Your task to perform on an android device: What is the recent news? Image 0: 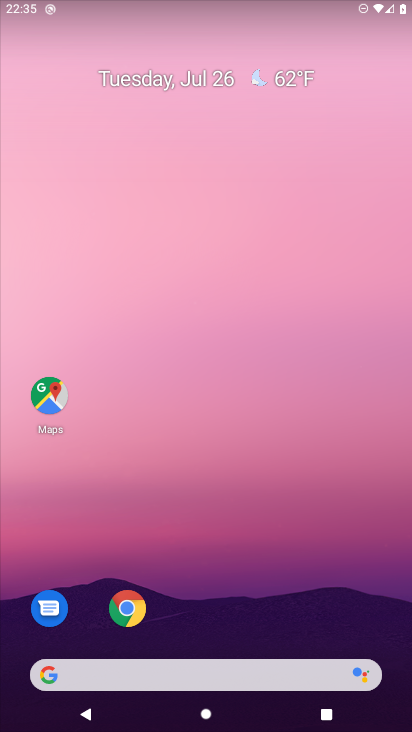
Step 0: click (134, 668)
Your task to perform on an android device: What is the recent news? Image 1: 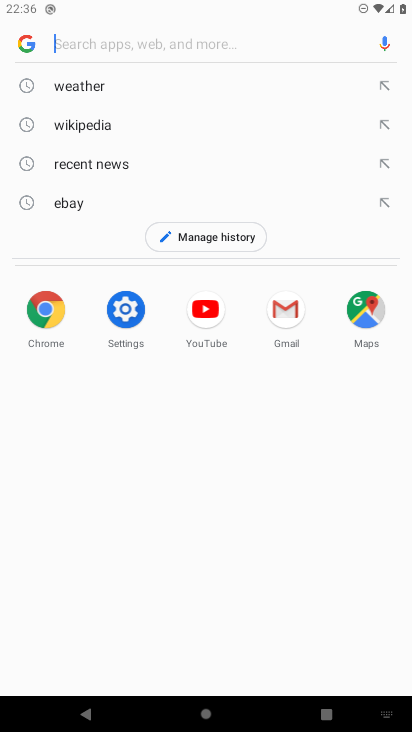
Step 1: type "What is the recent news?"
Your task to perform on an android device: What is the recent news? Image 2: 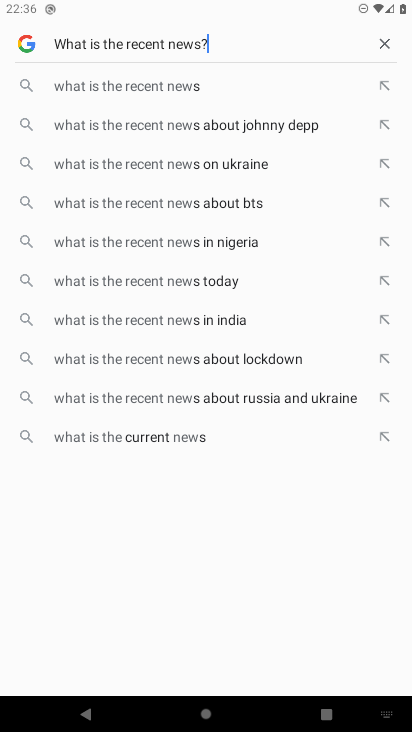
Step 2: type ""
Your task to perform on an android device: What is the recent news? Image 3: 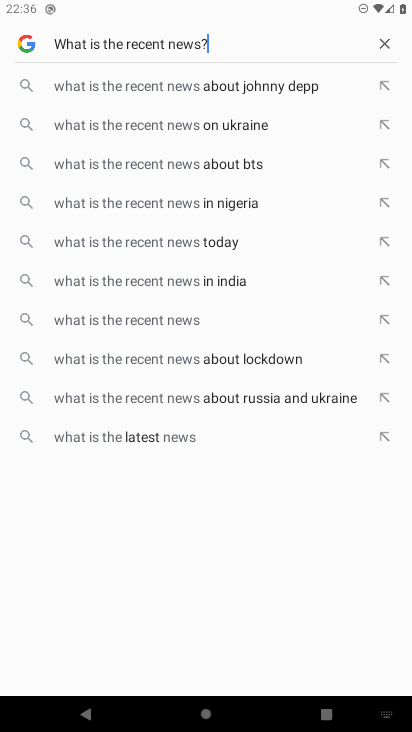
Step 3: type ""
Your task to perform on an android device: What is the recent news? Image 4: 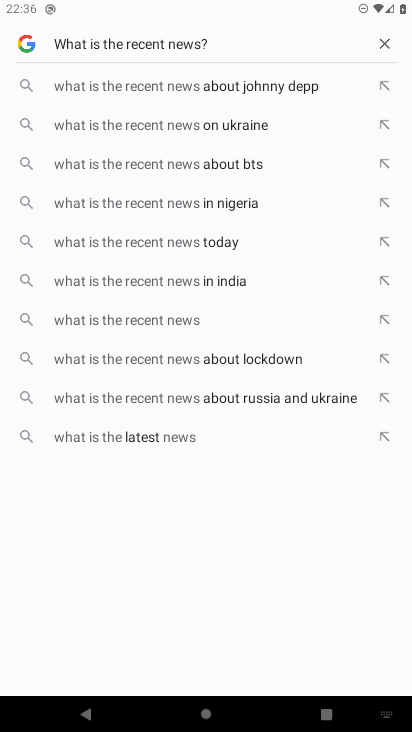
Step 4: task complete